Your task to perform on an android device: Open CNN.com Image 0: 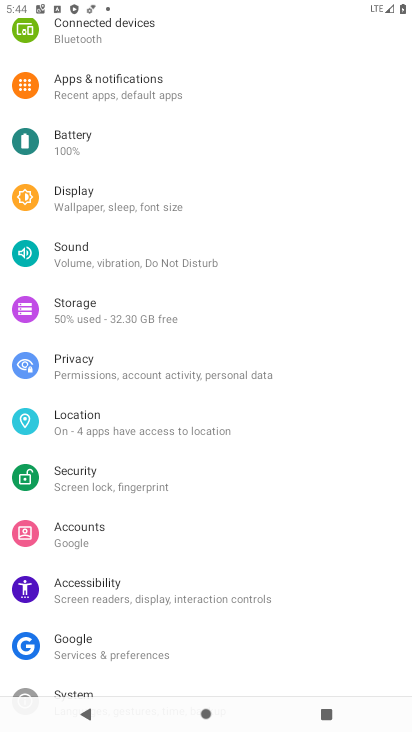
Step 0: press home button
Your task to perform on an android device: Open CNN.com Image 1: 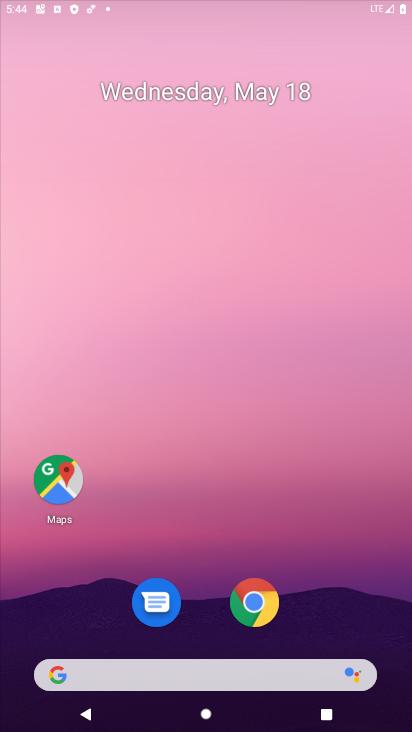
Step 1: drag from (273, 696) to (305, 64)
Your task to perform on an android device: Open CNN.com Image 2: 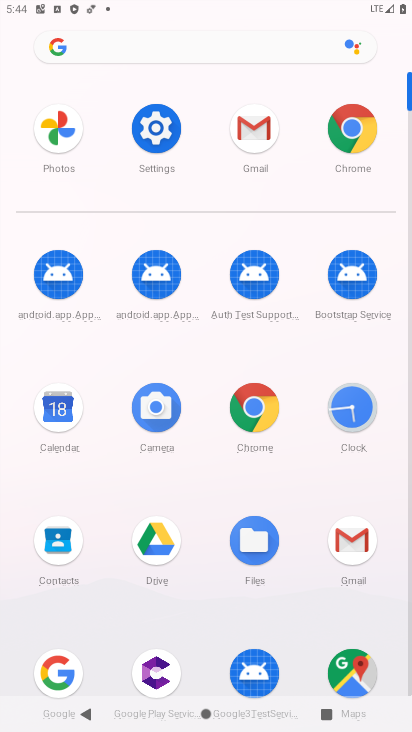
Step 2: click (262, 418)
Your task to perform on an android device: Open CNN.com Image 3: 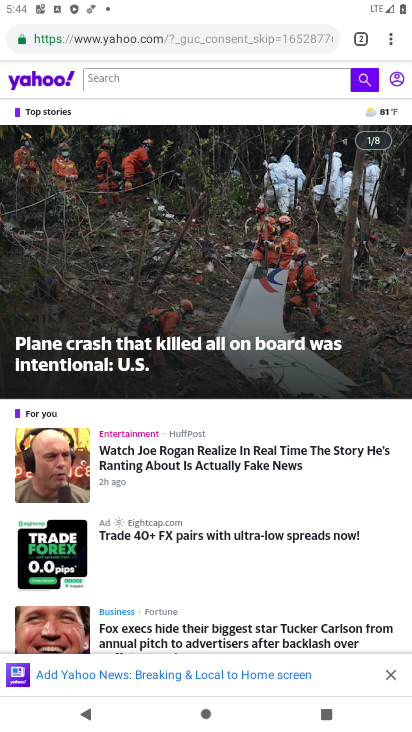
Step 3: click (170, 43)
Your task to perform on an android device: Open CNN.com Image 4: 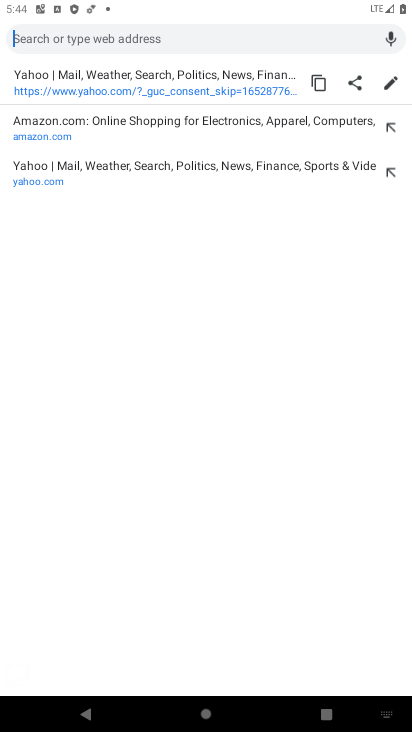
Step 4: type "cnn.com"
Your task to perform on an android device: Open CNN.com Image 5: 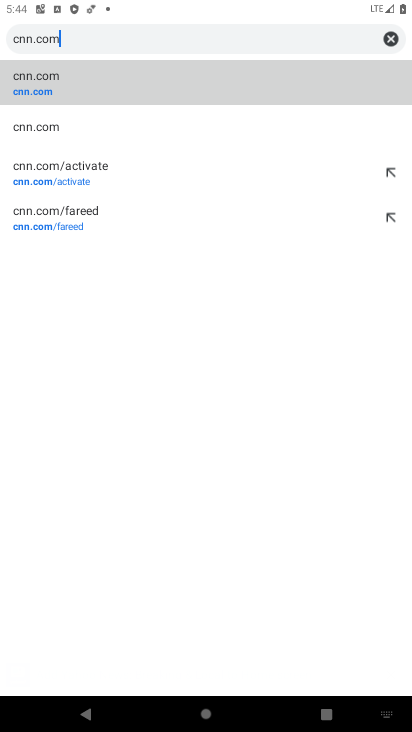
Step 5: click (66, 85)
Your task to perform on an android device: Open CNN.com Image 6: 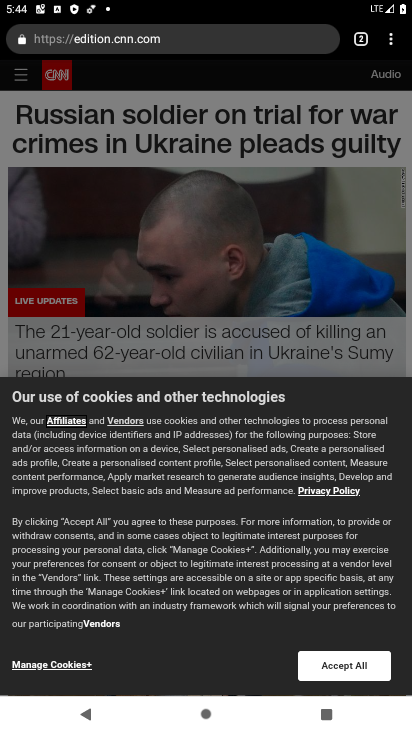
Step 6: task complete